Your task to perform on an android device: change alarm snooze length Image 0: 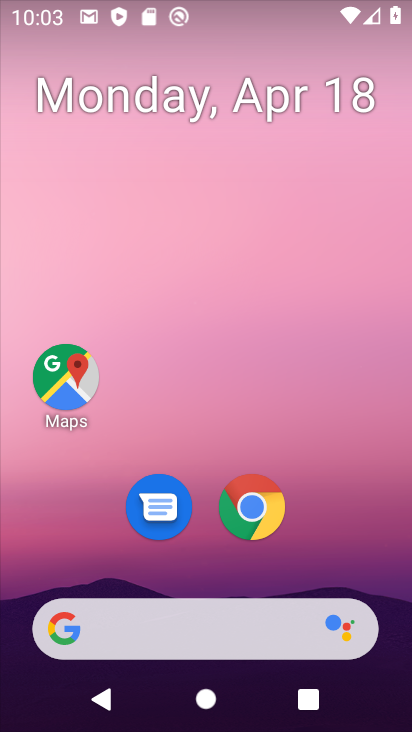
Step 0: drag from (352, 516) to (337, 85)
Your task to perform on an android device: change alarm snooze length Image 1: 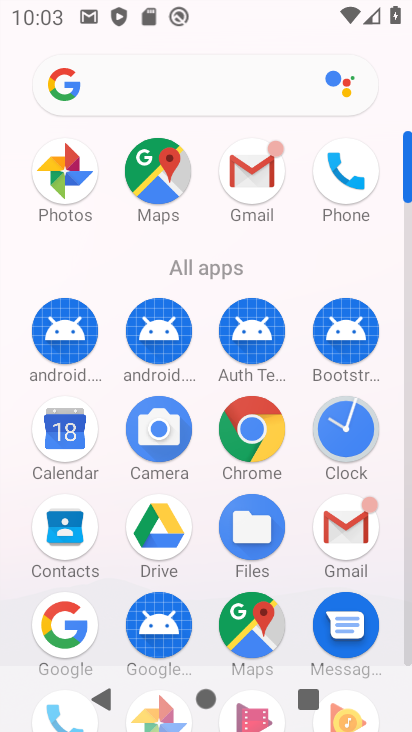
Step 1: click (340, 432)
Your task to perform on an android device: change alarm snooze length Image 2: 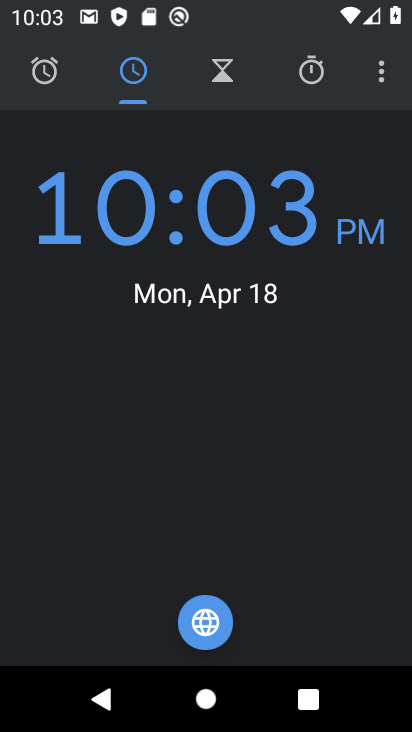
Step 2: click (380, 75)
Your task to perform on an android device: change alarm snooze length Image 3: 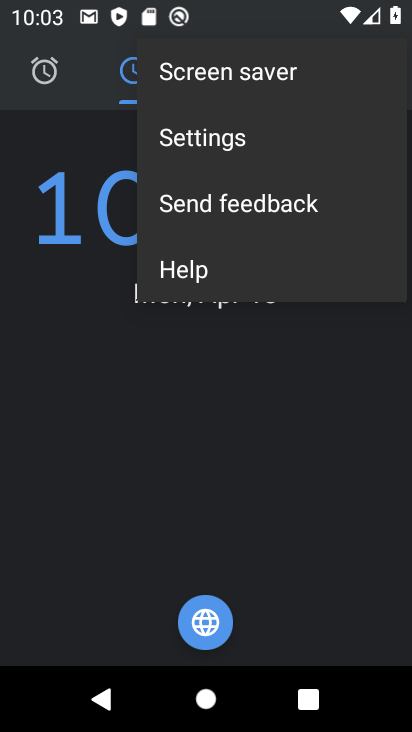
Step 3: click (323, 142)
Your task to perform on an android device: change alarm snooze length Image 4: 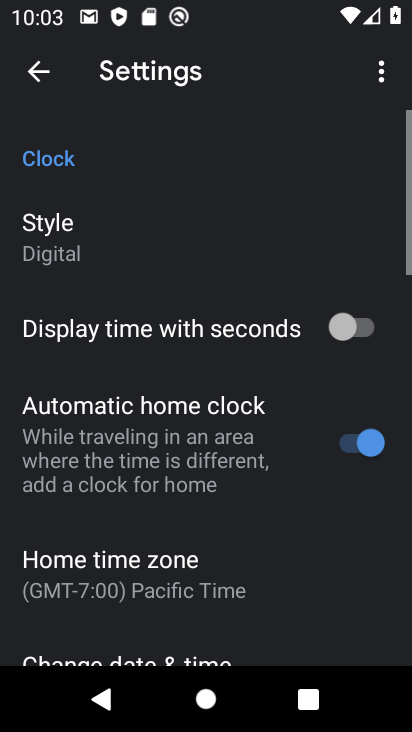
Step 4: drag from (234, 535) to (265, 171)
Your task to perform on an android device: change alarm snooze length Image 5: 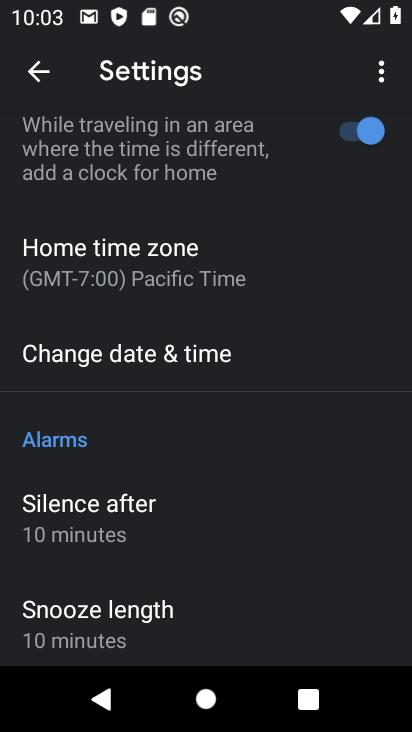
Step 5: click (222, 635)
Your task to perform on an android device: change alarm snooze length Image 6: 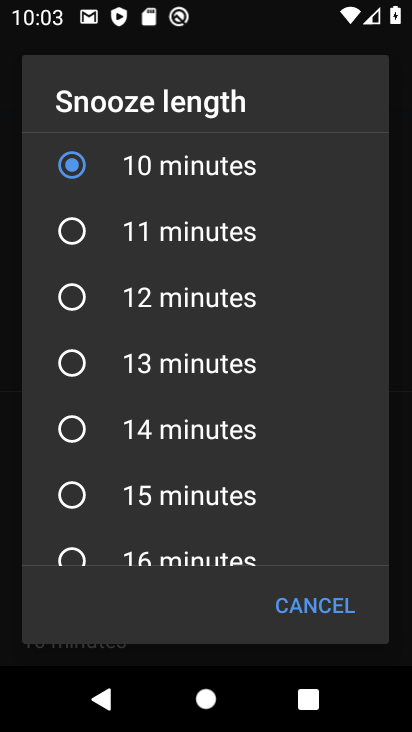
Step 6: click (75, 231)
Your task to perform on an android device: change alarm snooze length Image 7: 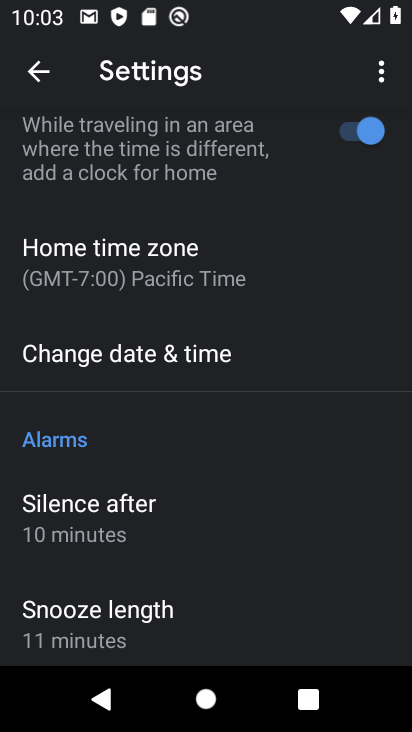
Step 7: task complete